Your task to perform on an android device: allow notifications from all sites in the chrome app Image 0: 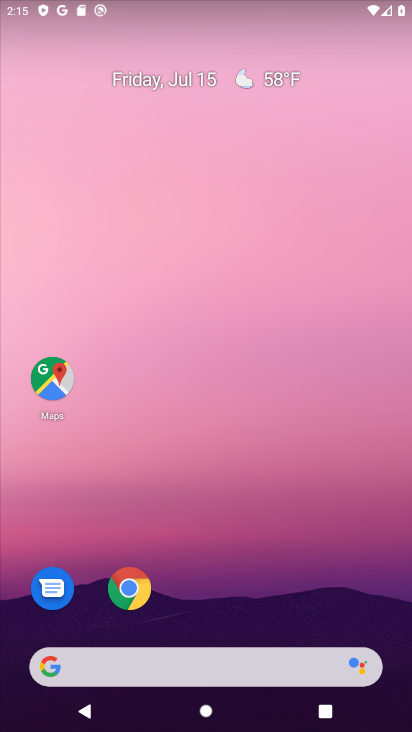
Step 0: click (151, 582)
Your task to perform on an android device: allow notifications from all sites in the chrome app Image 1: 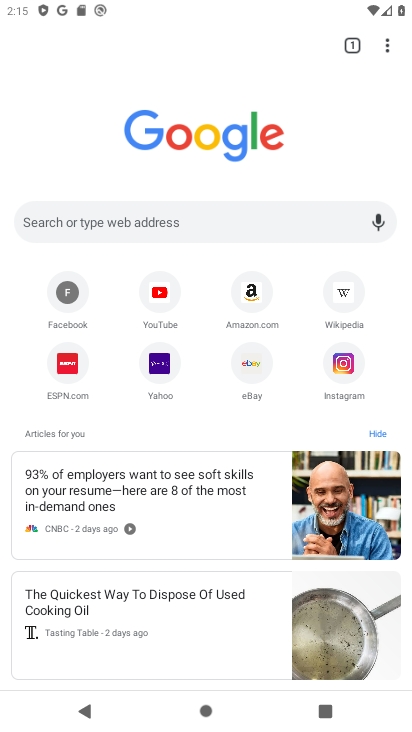
Step 1: click (392, 40)
Your task to perform on an android device: allow notifications from all sites in the chrome app Image 2: 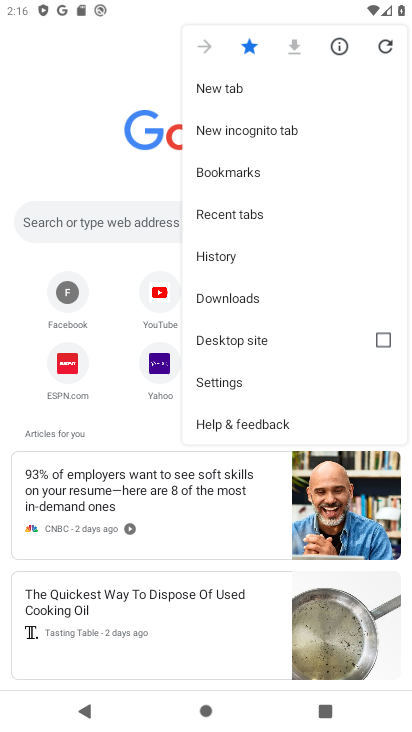
Step 2: click (247, 384)
Your task to perform on an android device: allow notifications from all sites in the chrome app Image 3: 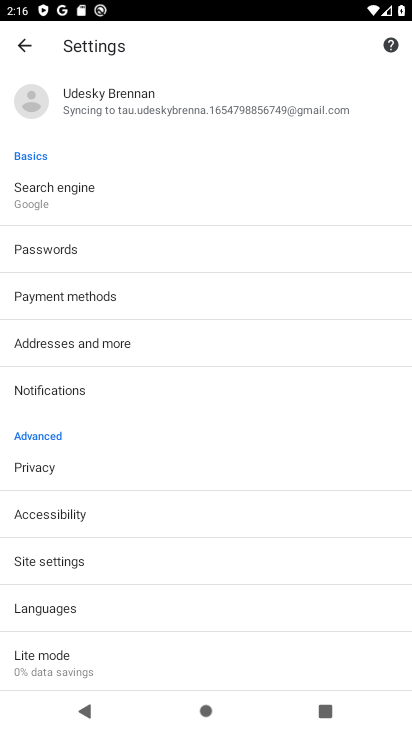
Step 3: click (91, 554)
Your task to perform on an android device: allow notifications from all sites in the chrome app Image 4: 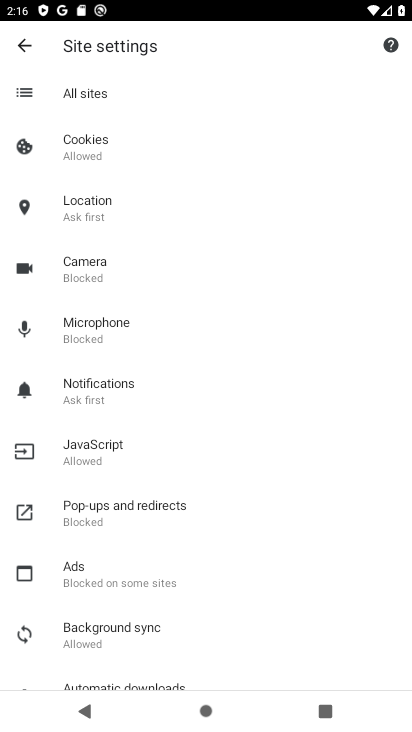
Step 4: click (130, 408)
Your task to perform on an android device: allow notifications from all sites in the chrome app Image 5: 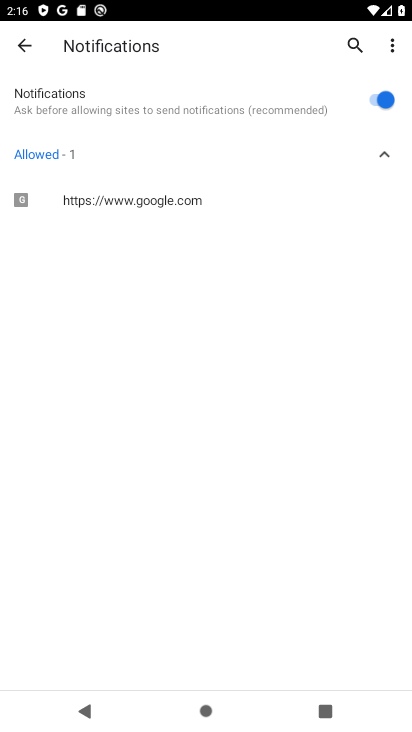
Step 5: task complete